Your task to perform on an android device: check data usage Image 0: 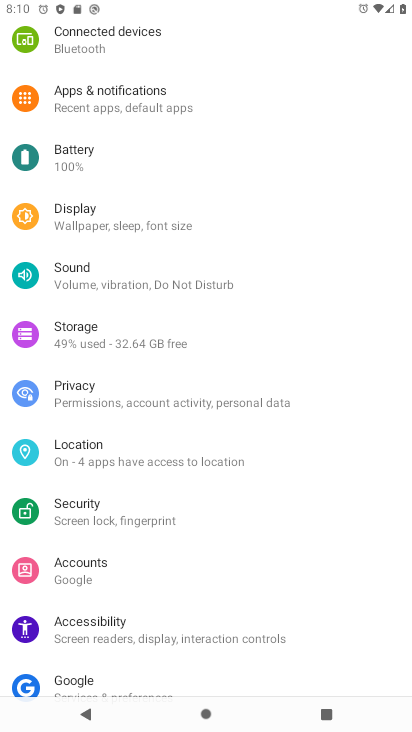
Step 0: drag from (199, 210) to (199, 303)
Your task to perform on an android device: check data usage Image 1: 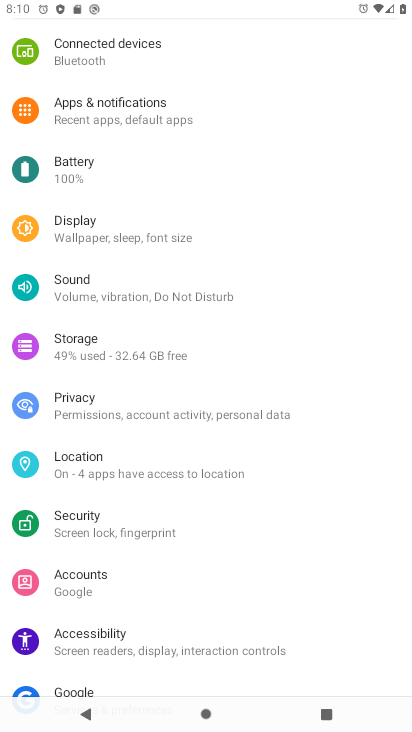
Step 1: drag from (233, 137) to (230, 446)
Your task to perform on an android device: check data usage Image 2: 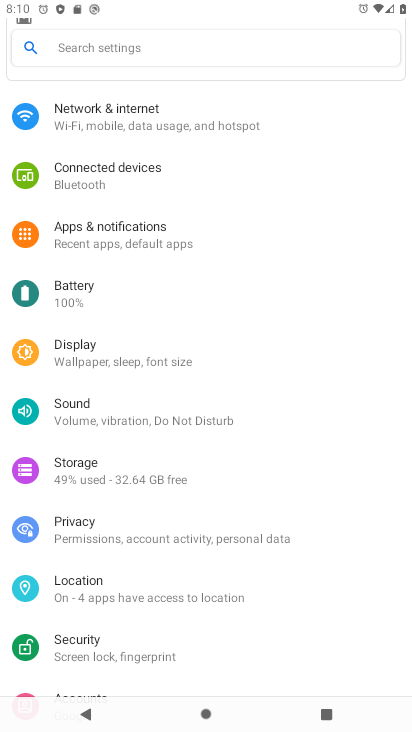
Step 2: click (134, 108)
Your task to perform on an android device: check data usage Image 3: 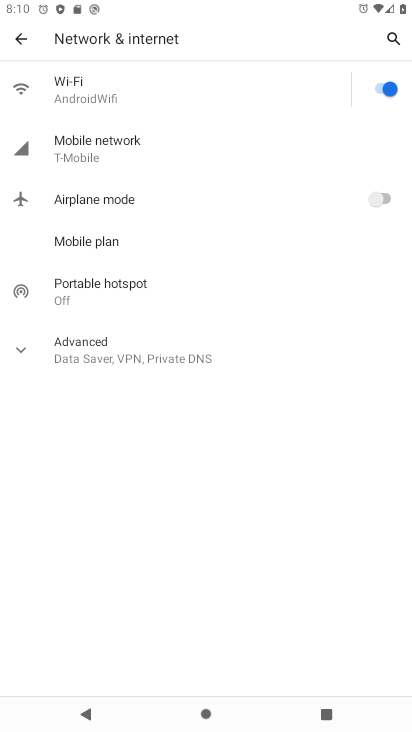
Step 3: click (115, 141)
Your task to perform on an android device: check data usage Image 4: 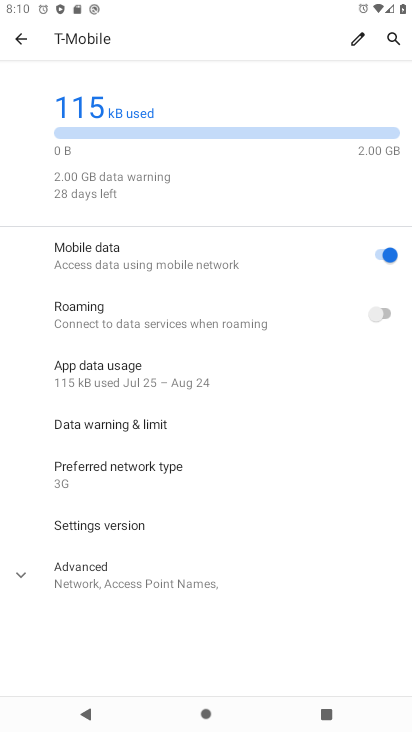
Step 4: task complete